Your task to perform on an android device: turn on airplane mode Image 0: 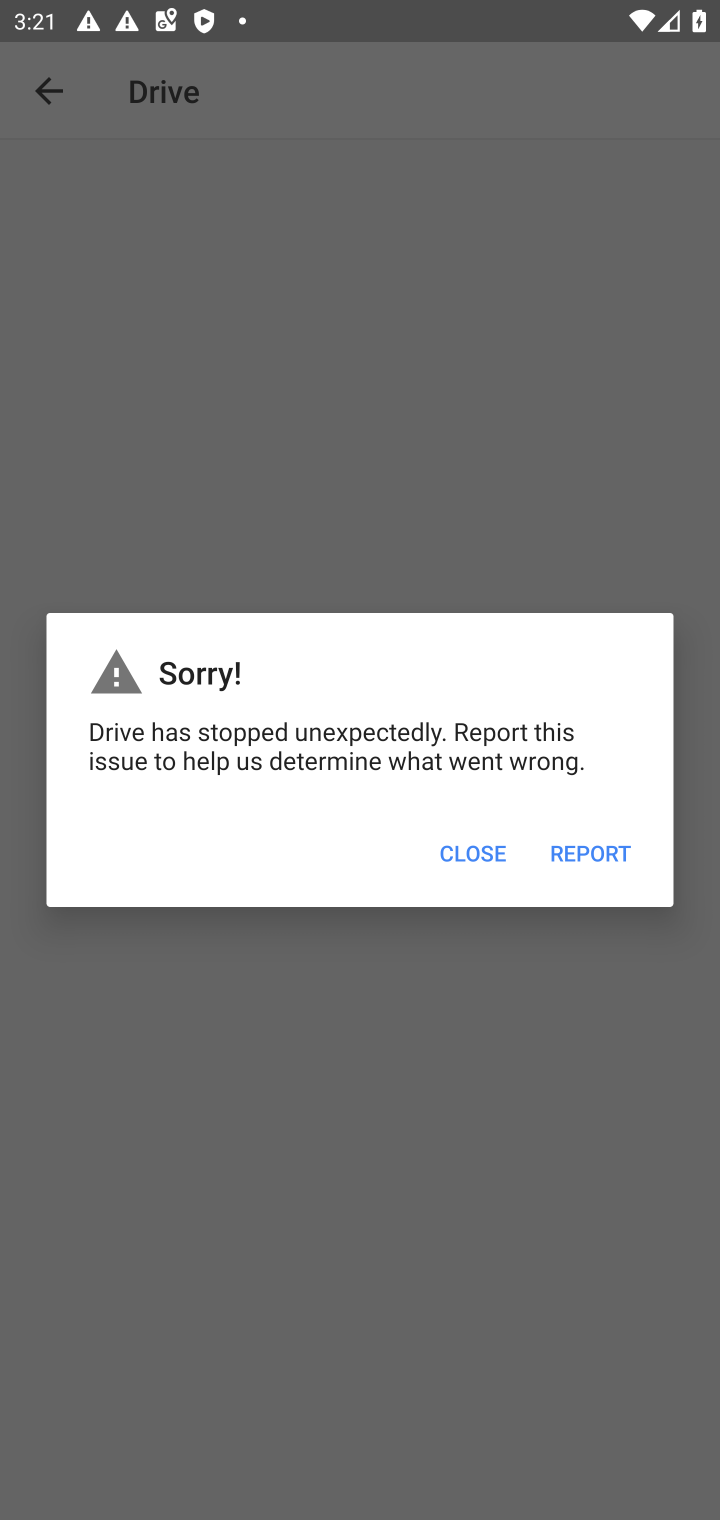
Step 0: press back button
Your task to perform on an android device: turn on airplane mode Image 1: 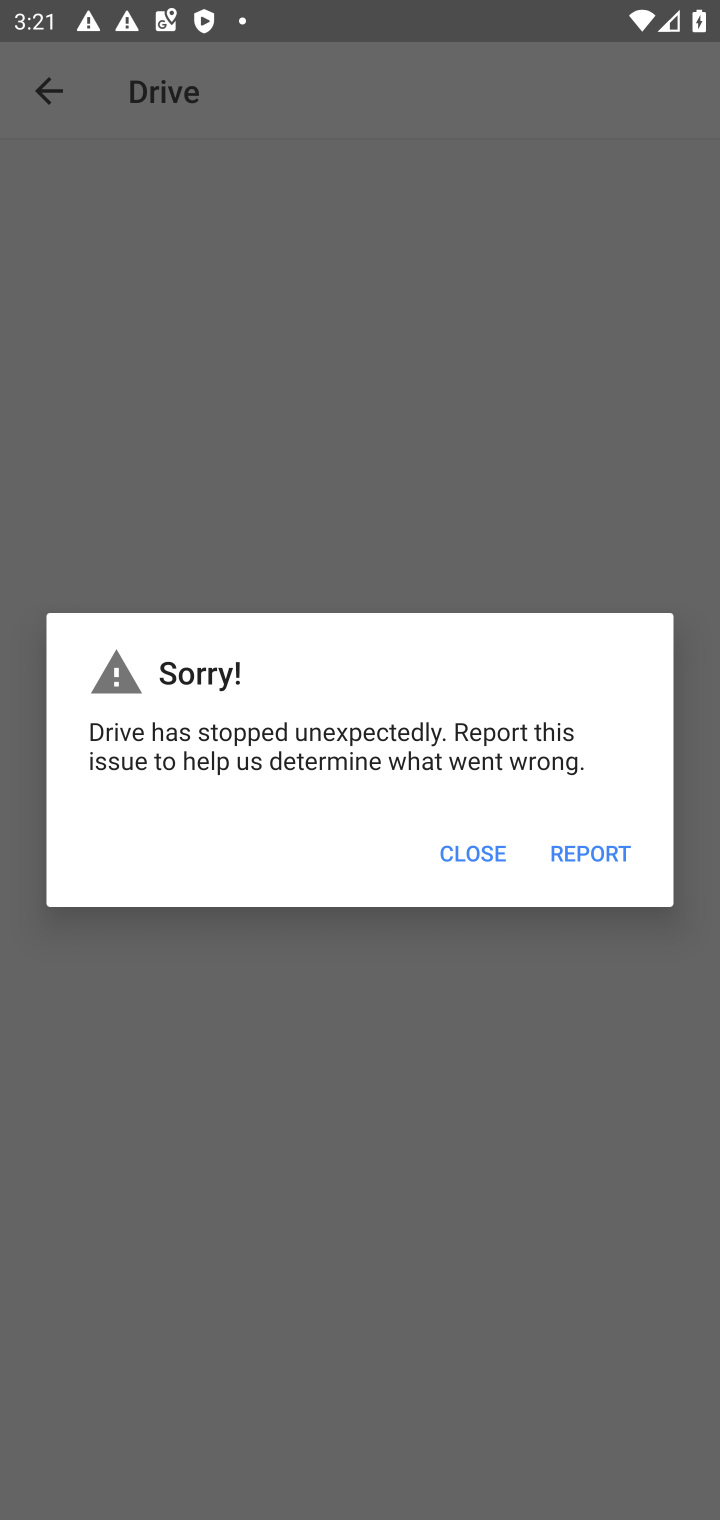
Step 1: drag from (616, 13) to (519, 1255)
Your task to perform on an android device: turn on airplane mode Image 2: 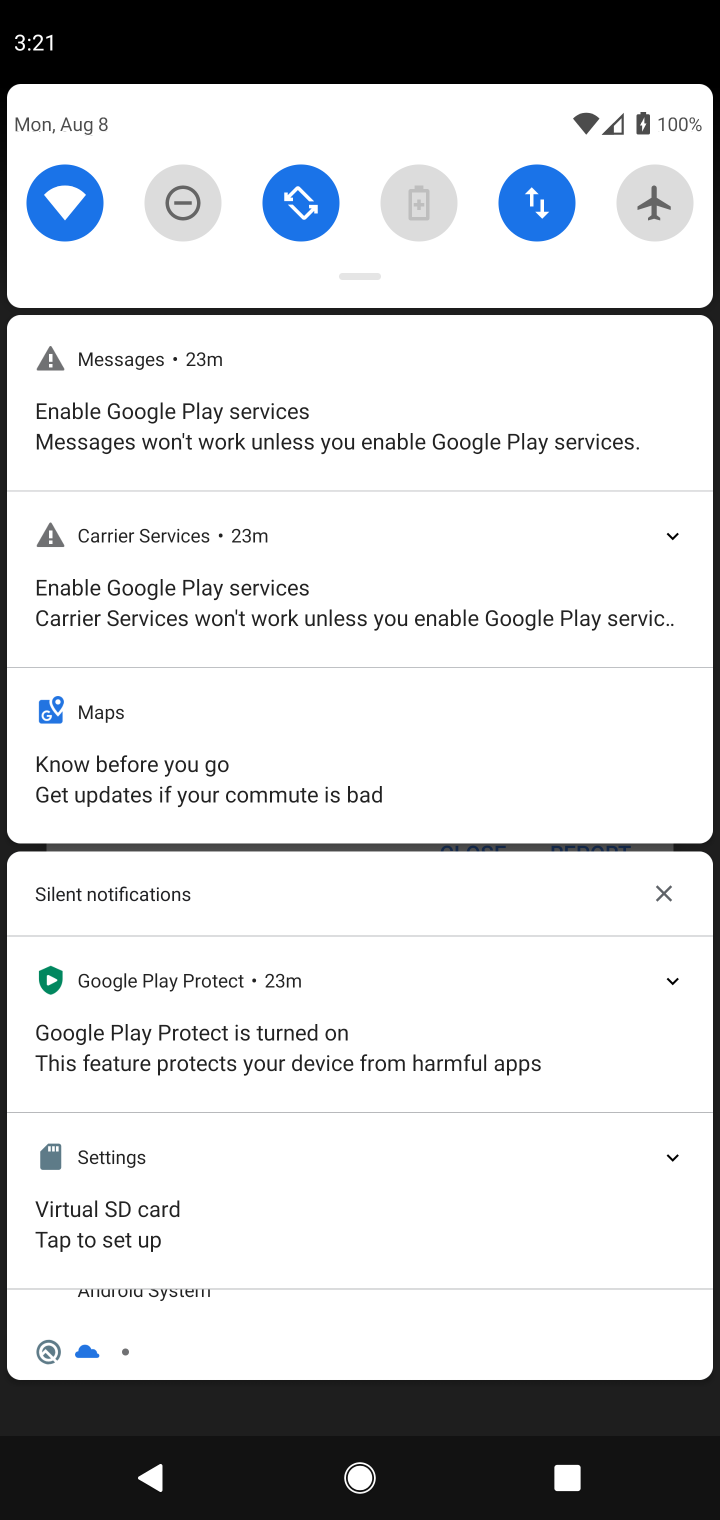
Step 2: click (644, 198)
Your task to perform on an android device: turn on airplane mode Image 3: 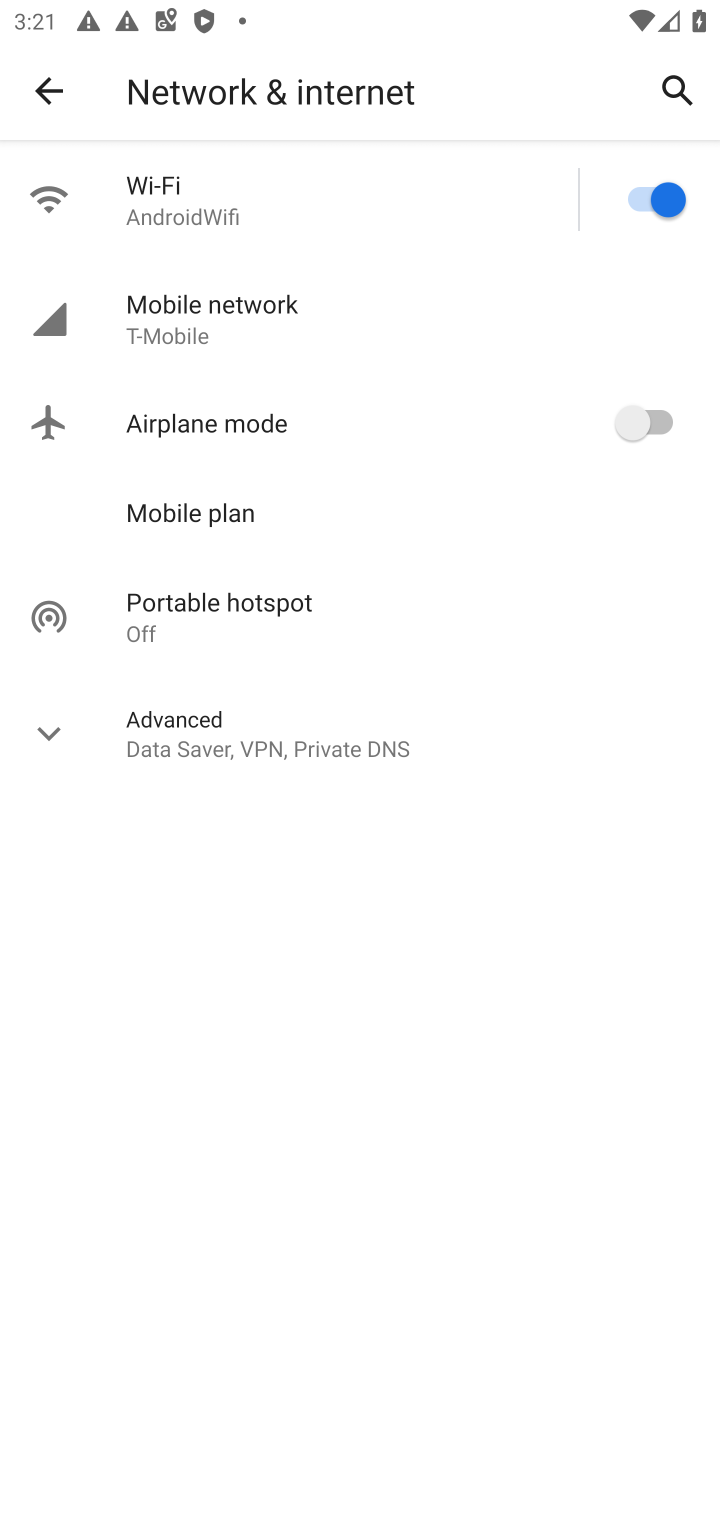
Step 3: click (639, 431)
Your task to perform on an android device: turn on airplane mode Image 4: 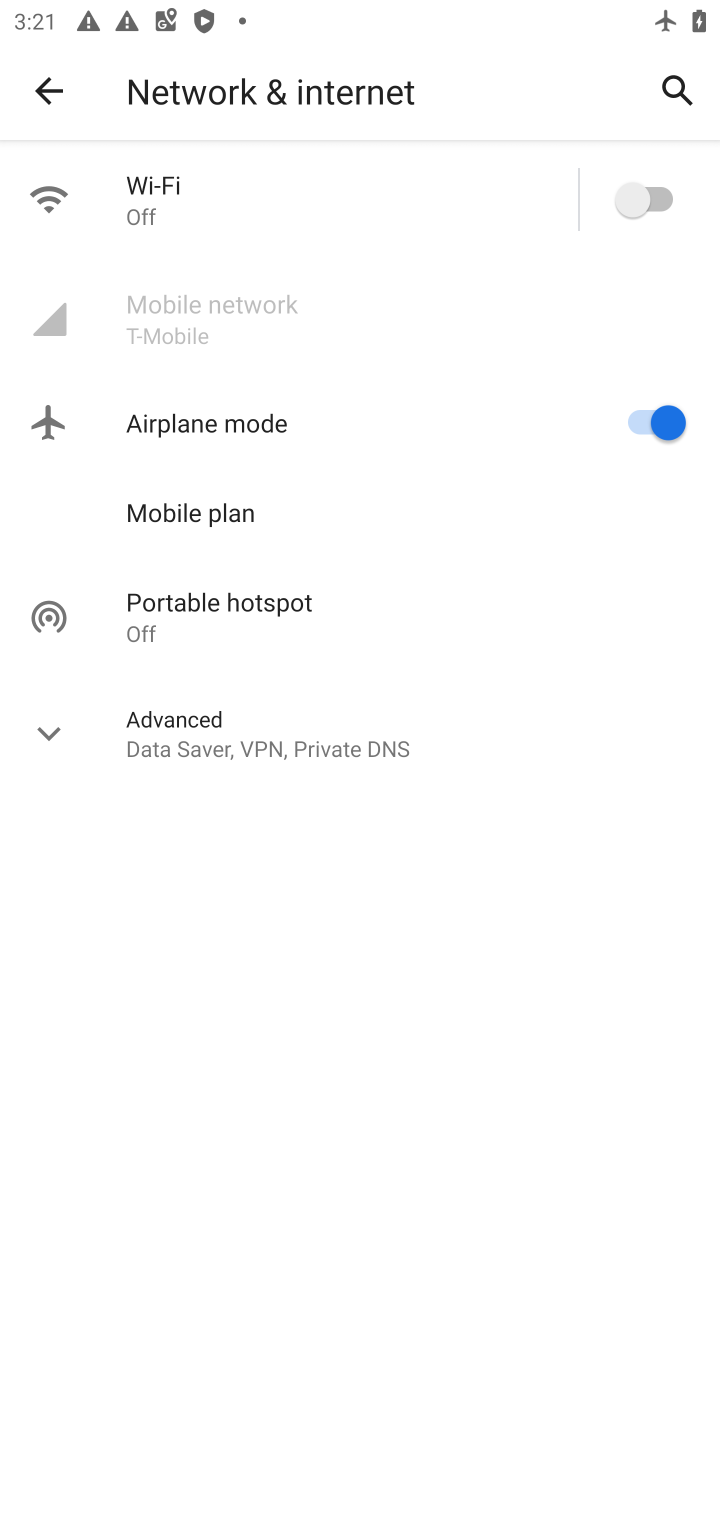
Step 4: task complete